Your task to perform on an android device: search for starred emails in the gmail app Image 0: 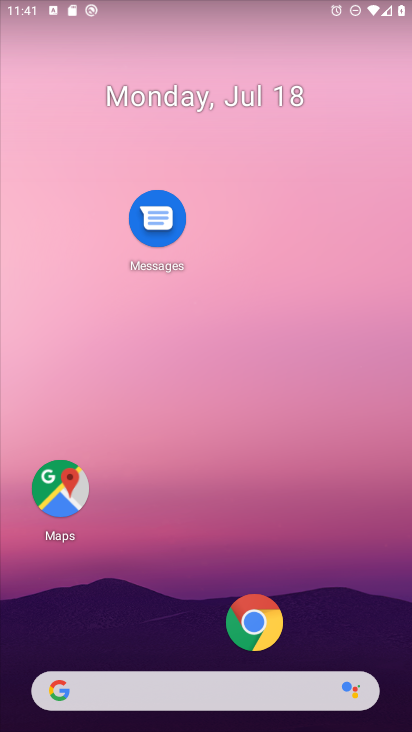
Step 0: drag from (216, 709) to (275, 225)
Your task to perform on an android device: search for starred emails in the gmail app Image 1: 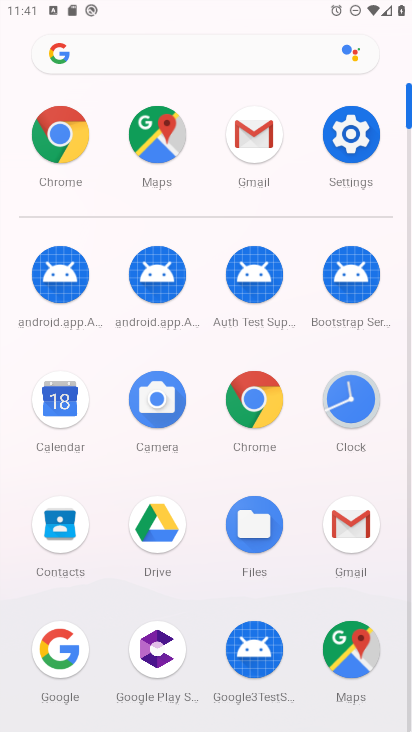
Step 1: click (332, 540)
Your task to perform on an android device: search for starred emails in the gmail app Image 2: 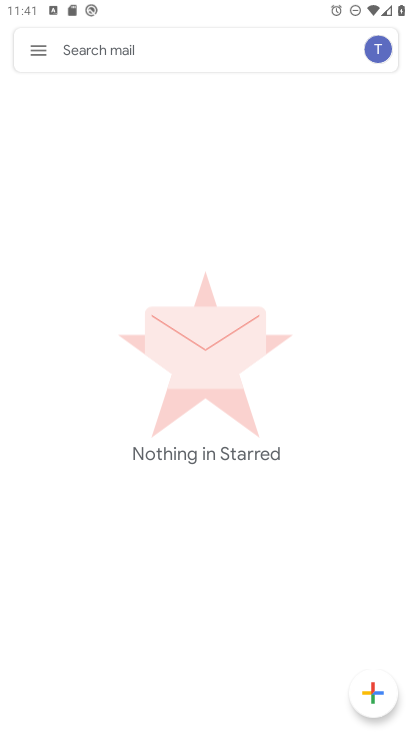
Step 2: press home button
Your task to perform on an android device: search for starred emails in the gmail app Image 3: 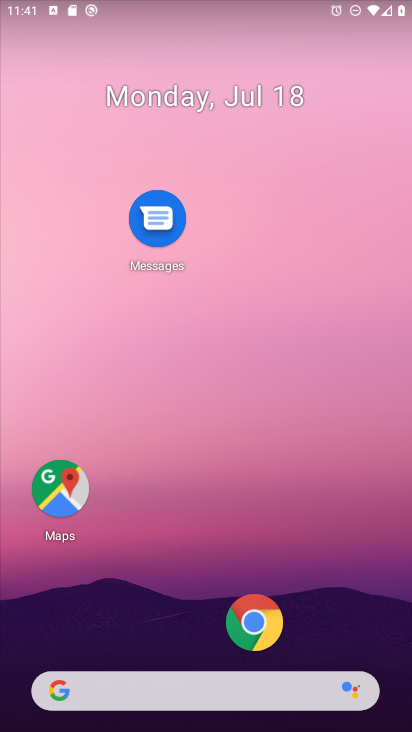
Step 3: drag from (284, 666) to (300, 167)
Your task to perform on an android device: search for starred emails in the gmail app Image 4: 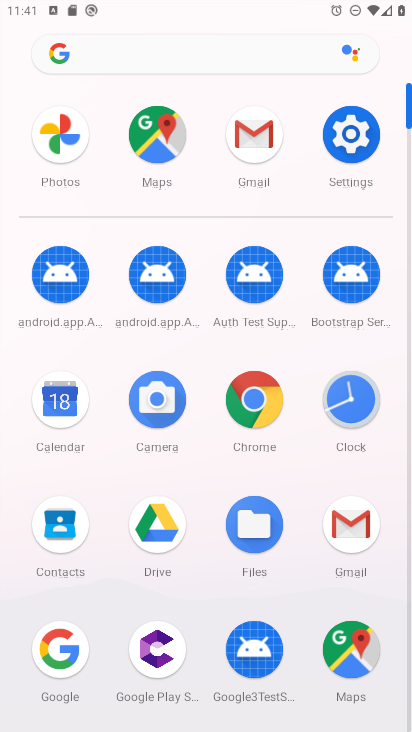
Step 4: click (371, 539)
Your task to perform on an android device: search for starred emails in the gmail app Image 5: 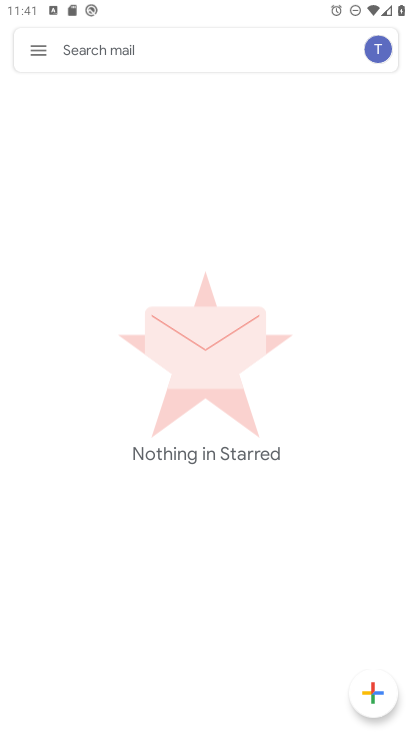
Step 5: press home button
Your task to perform on an android device: search for starred emails in the gmail app Image 6: 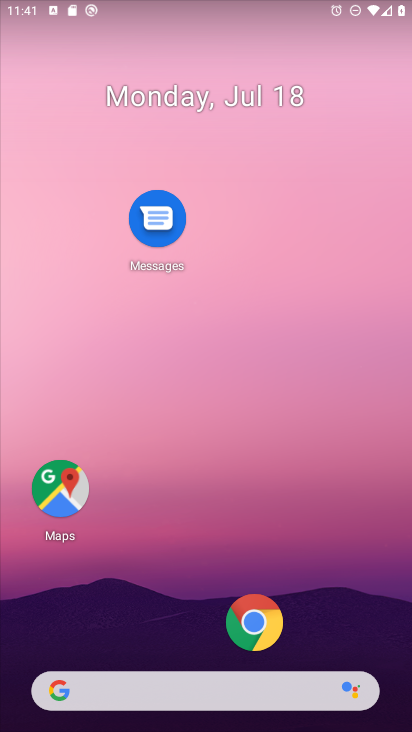
Step 6: drag from (238, 694) to (309, 145)
Your task to perform on an android device: search for starred emails in the gmail app Image 7: 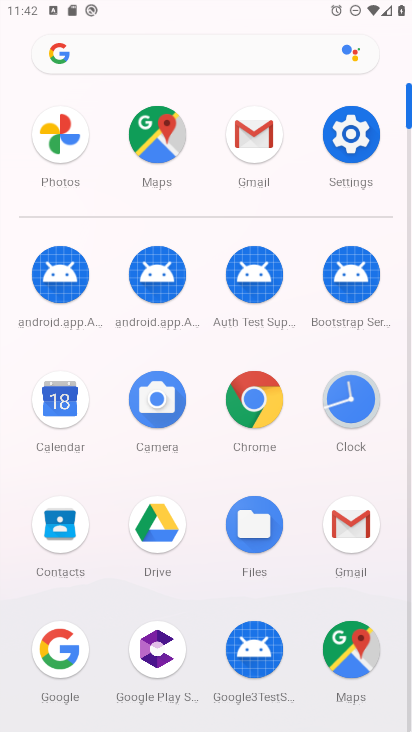
Step 7: click (367, 542)
Your task to perform on an android device: search for starred emails in the gmail app Image 8: 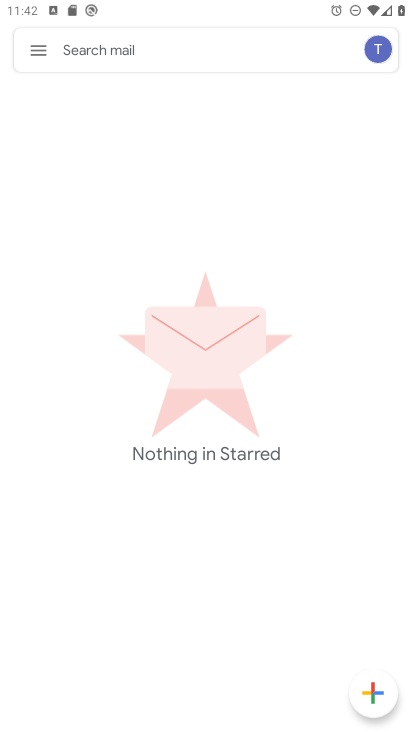
Step 8: click (42, 56)
Your task to perform on an android device: search for starred emails in the gmail app Image 9: 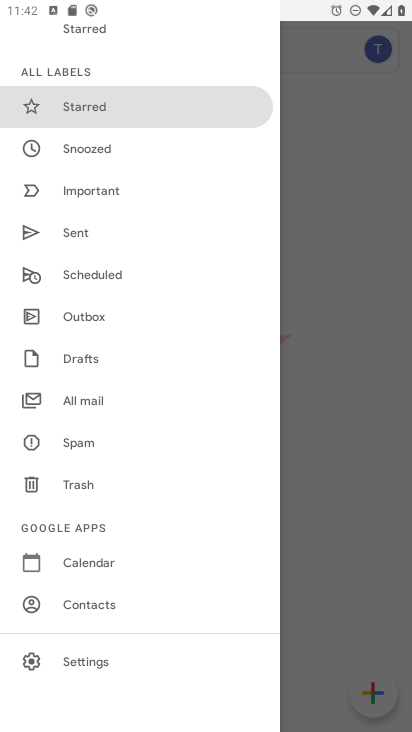
Step 9: click (174, 113)
Your task to perform on an android device: search for starred emails in the gmail app Image 10: 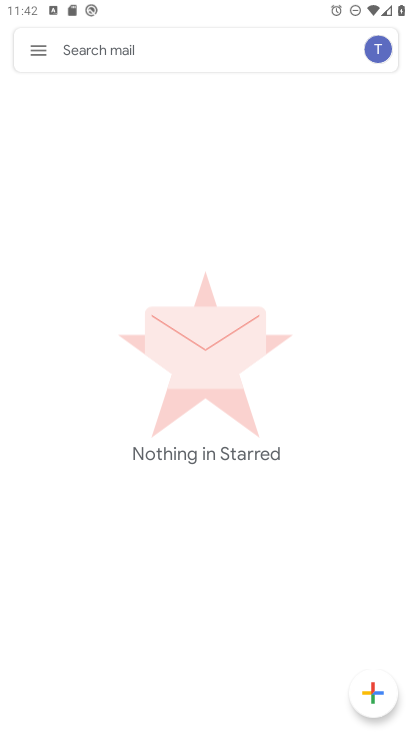
Step 10: task complete